Your task to perform on an android device: choose inbox layout in the gmail app Image 0: 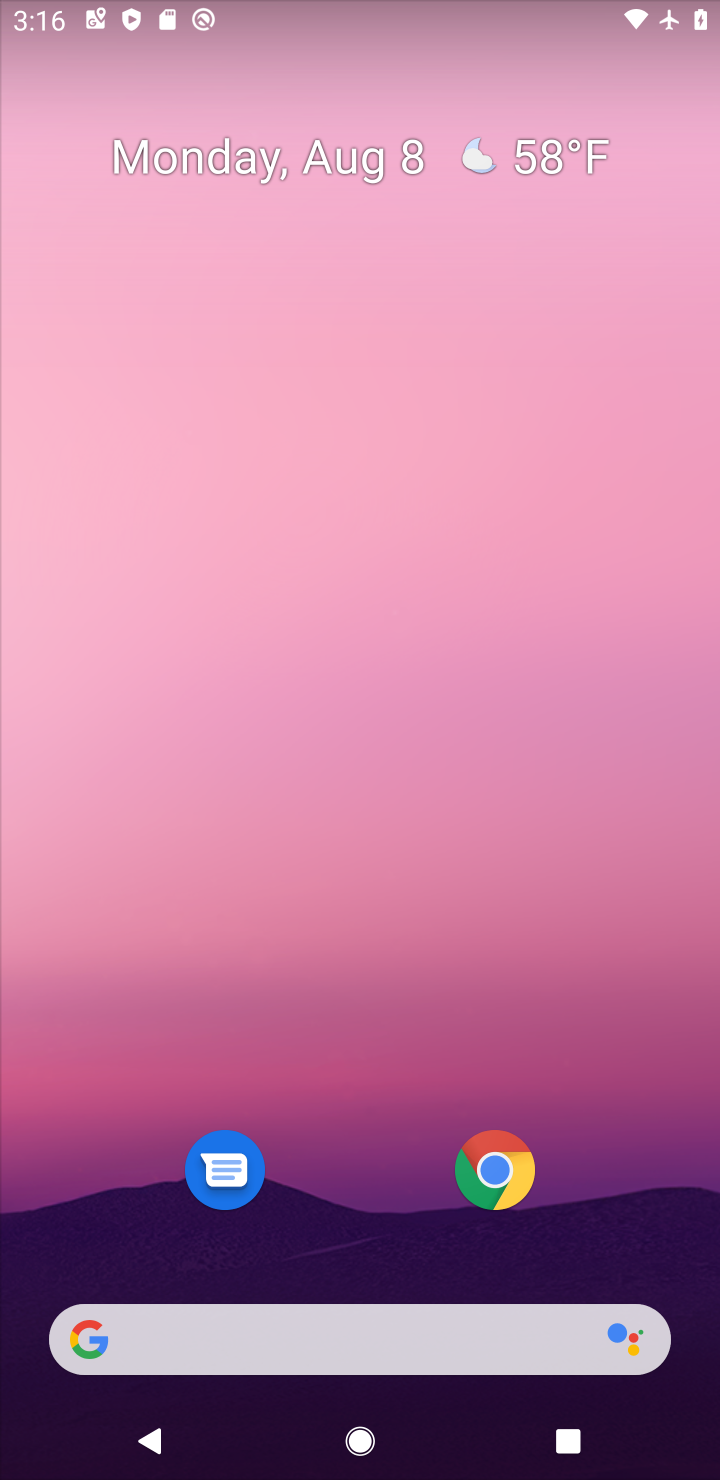
Step 0: drag from (338, 1124) to (338, 573)
Your task to perform on an android device: choose inbox layout in the gmail app Image 1: 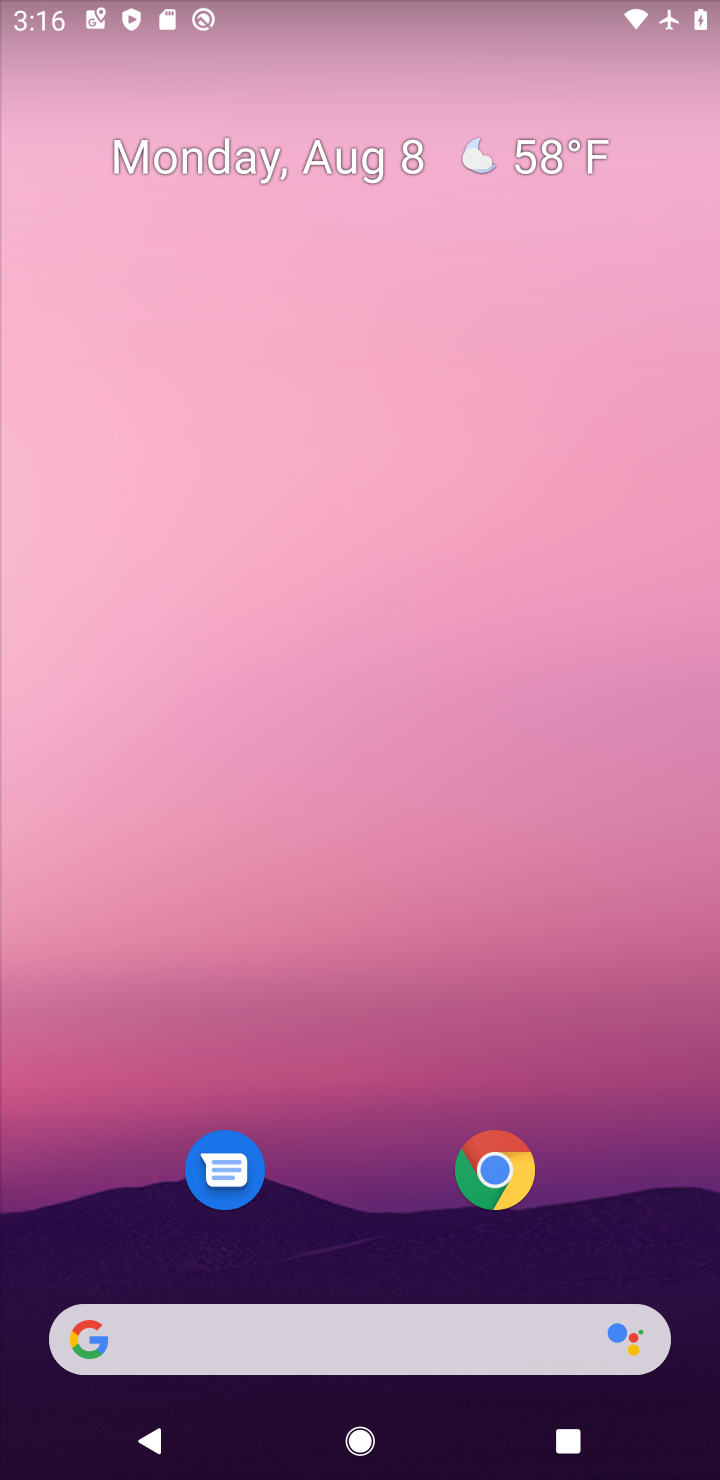
Step 1: drag from (348, 1174) to (350, 443)
Your task to perform on an android device: choose inbox layout in the gmail app Image 2: 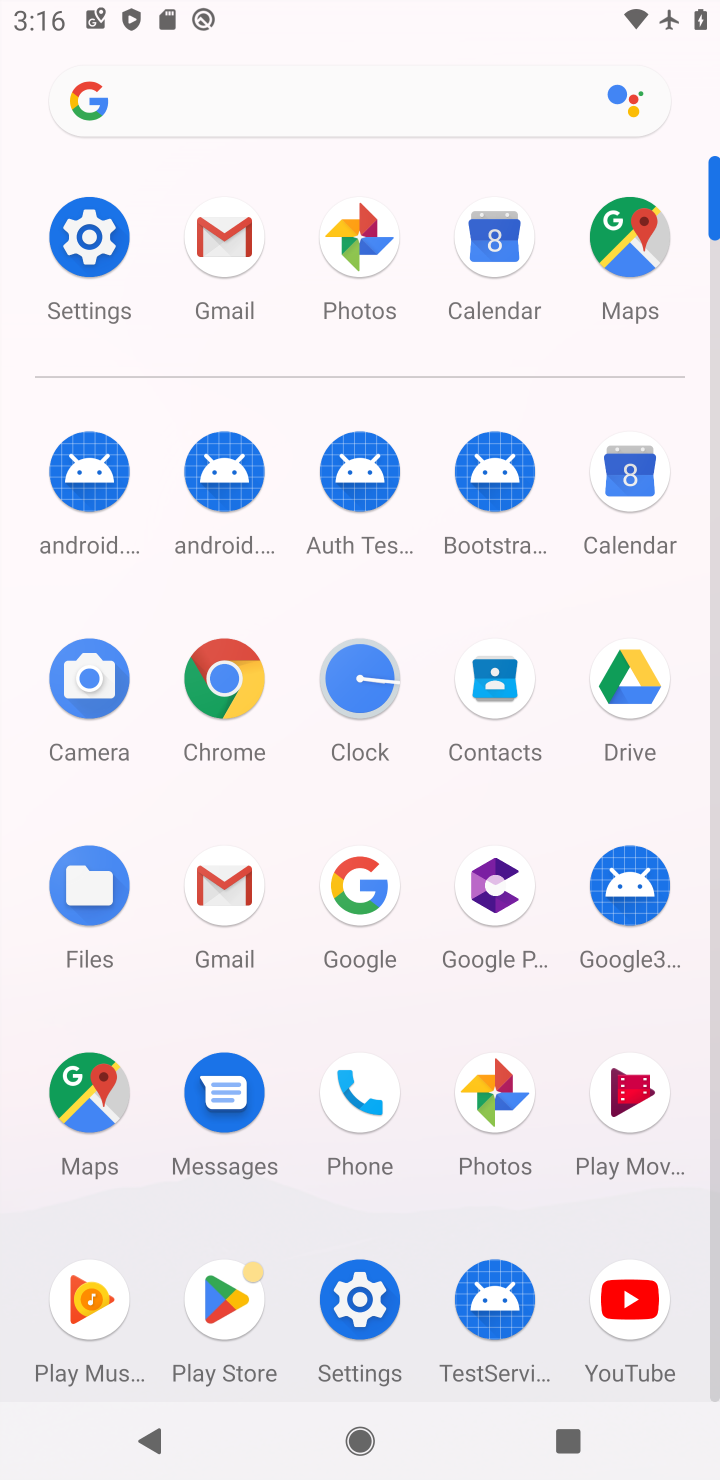
Step 2: click (209, 905)
Your task to perform on an android device: choose inbox layout in the gmail app Image 3: 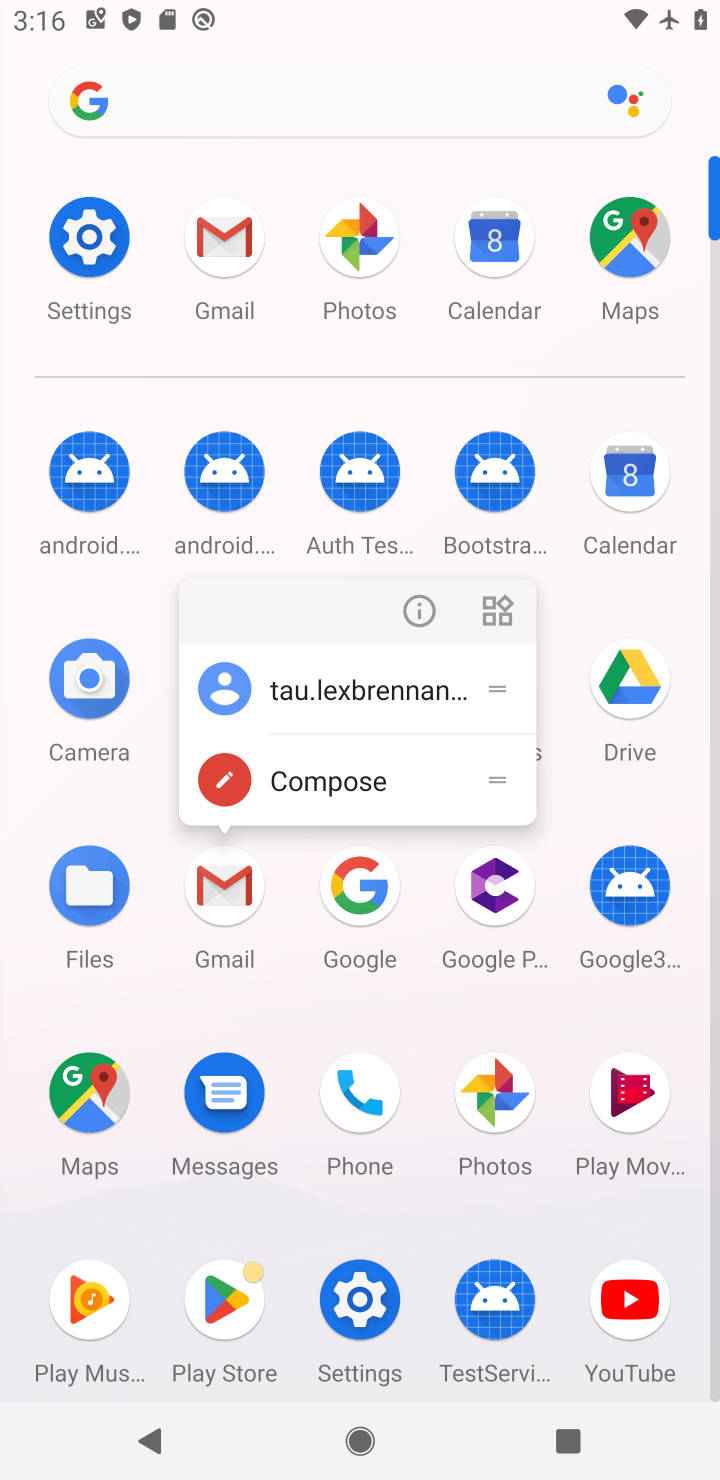
Step 3: click (227, 924)
Your task to perform on an android device: choose inbox layout in the gmail app Image 4: 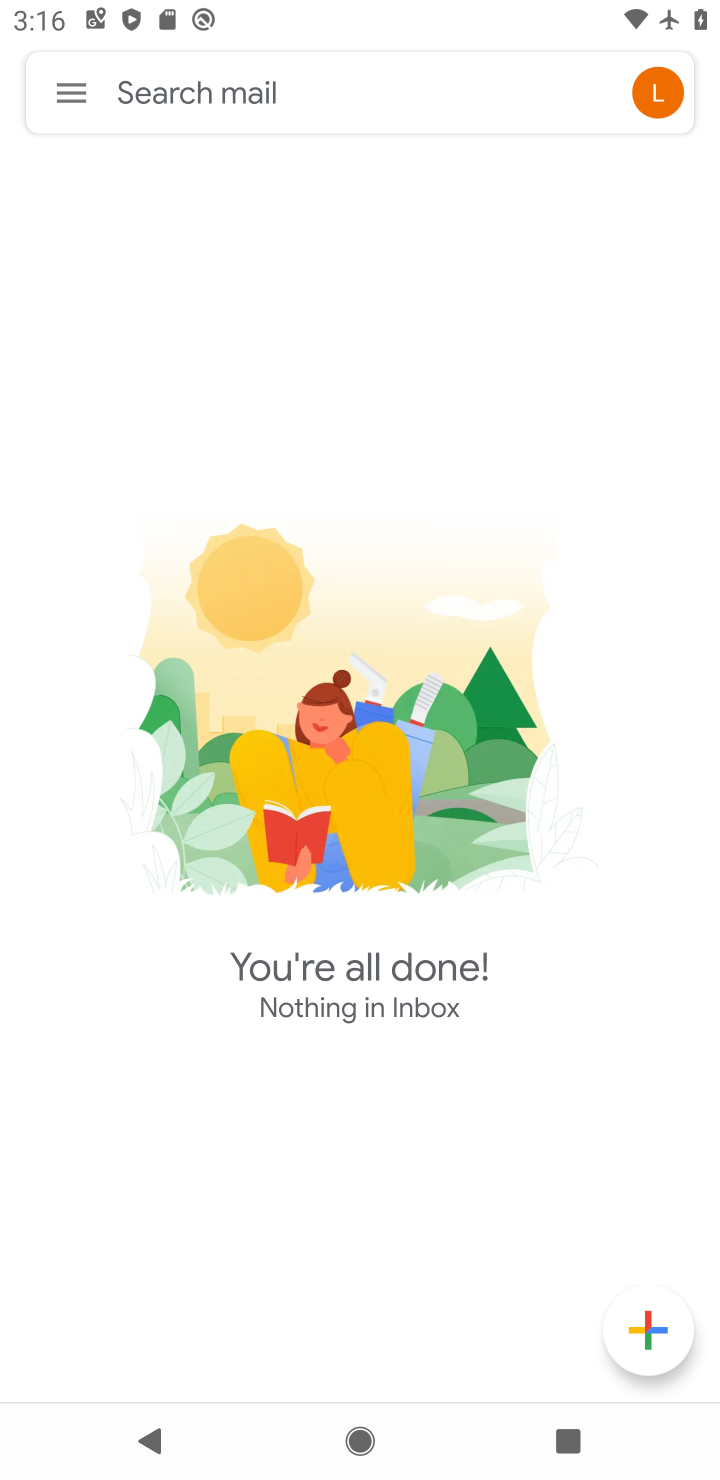
Step 4: click (87, 99)
Your task to perform on an android device: choose inbox layout in the gmail app Image 5: 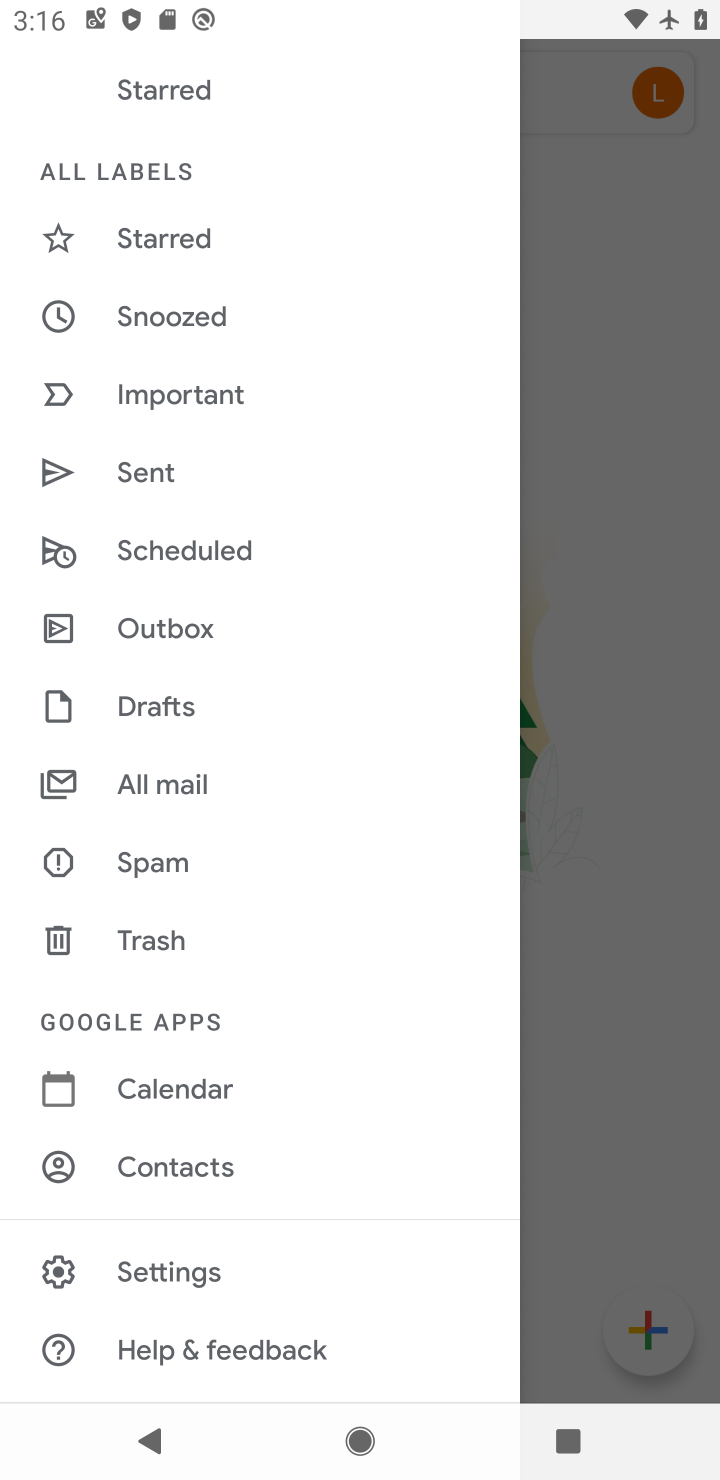
Step 5: click (200, 1276)
Your task to perform on an android device: choose inbox layout in the gmail app Image 6: 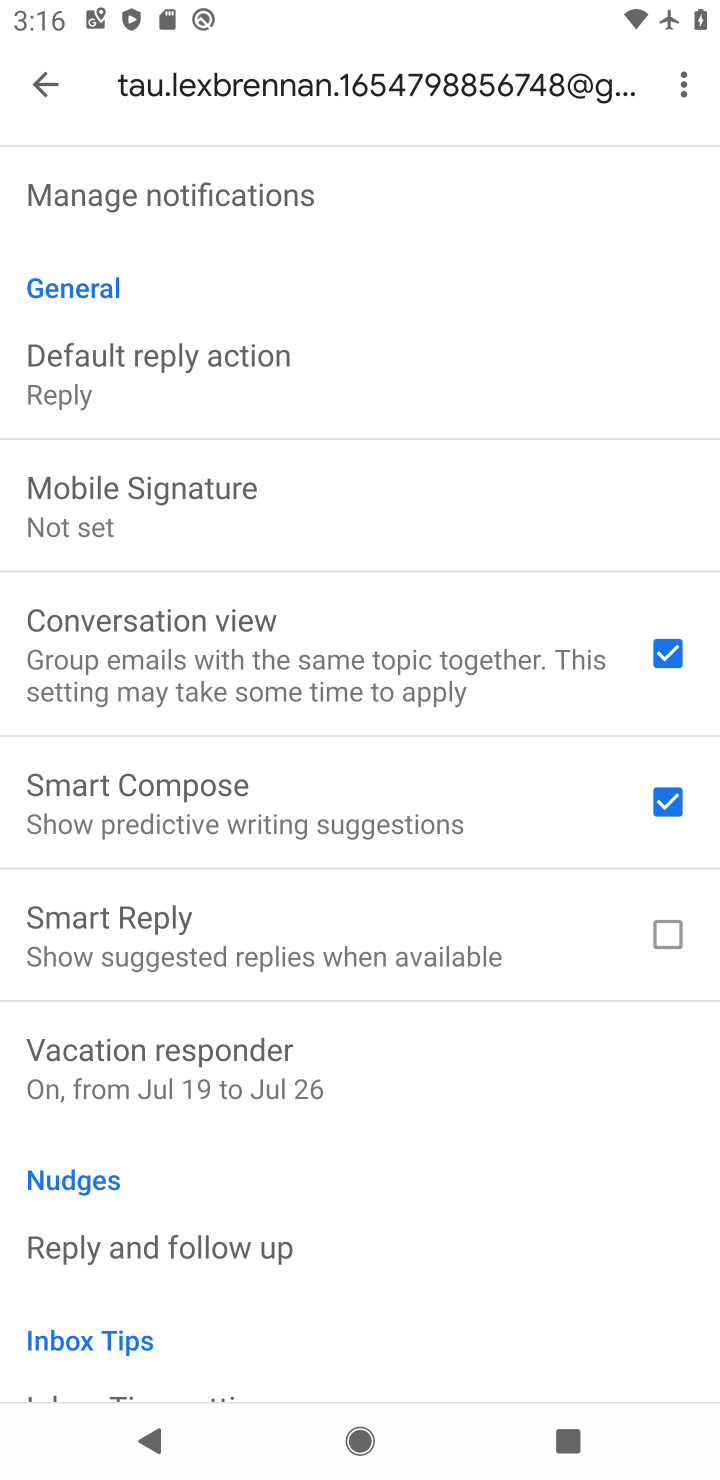
Step 6: drag from (259, 496) to (277, 1198)
Your task to perform on an android device: choose inbox layout in the gmail app Image 7: 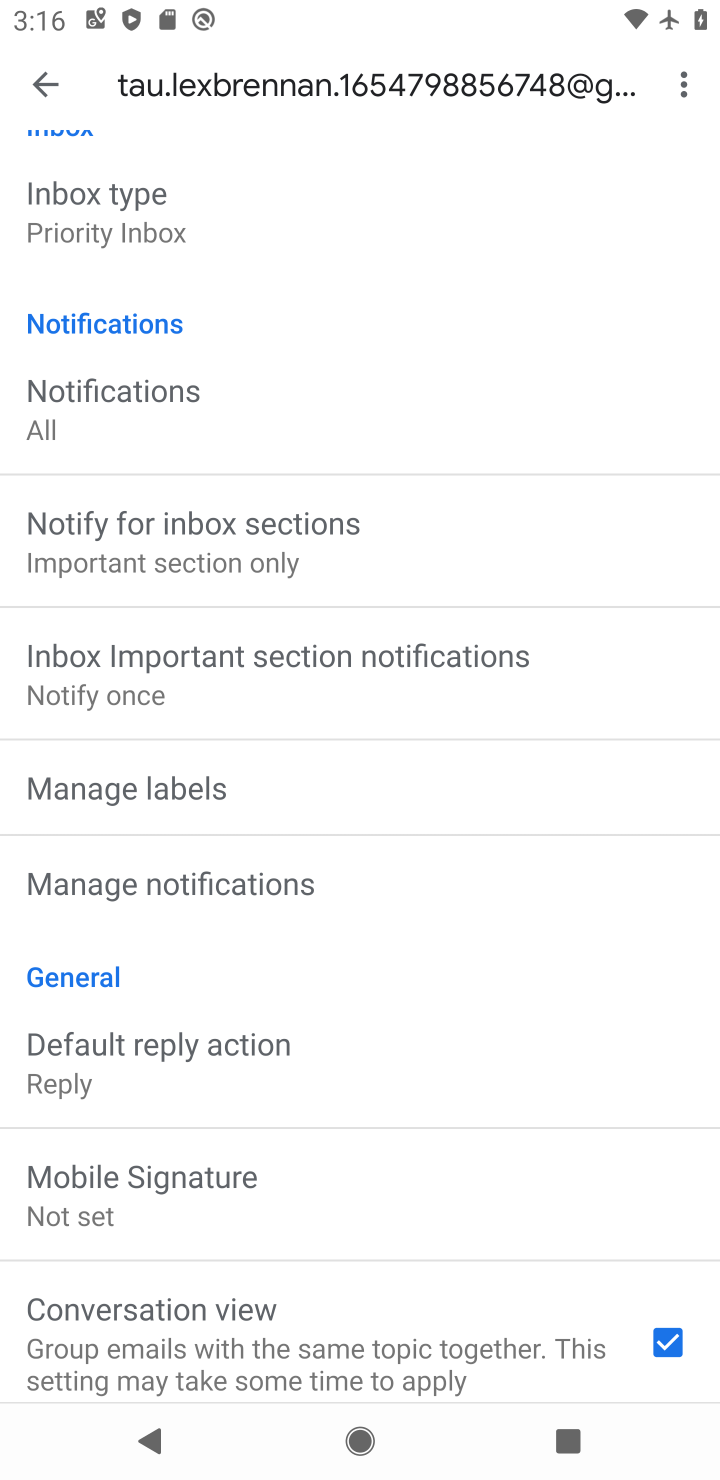
Step 7: click (115, 240)
Your task to perform on an android device: choose inbox layout in the gmail app Image 8: 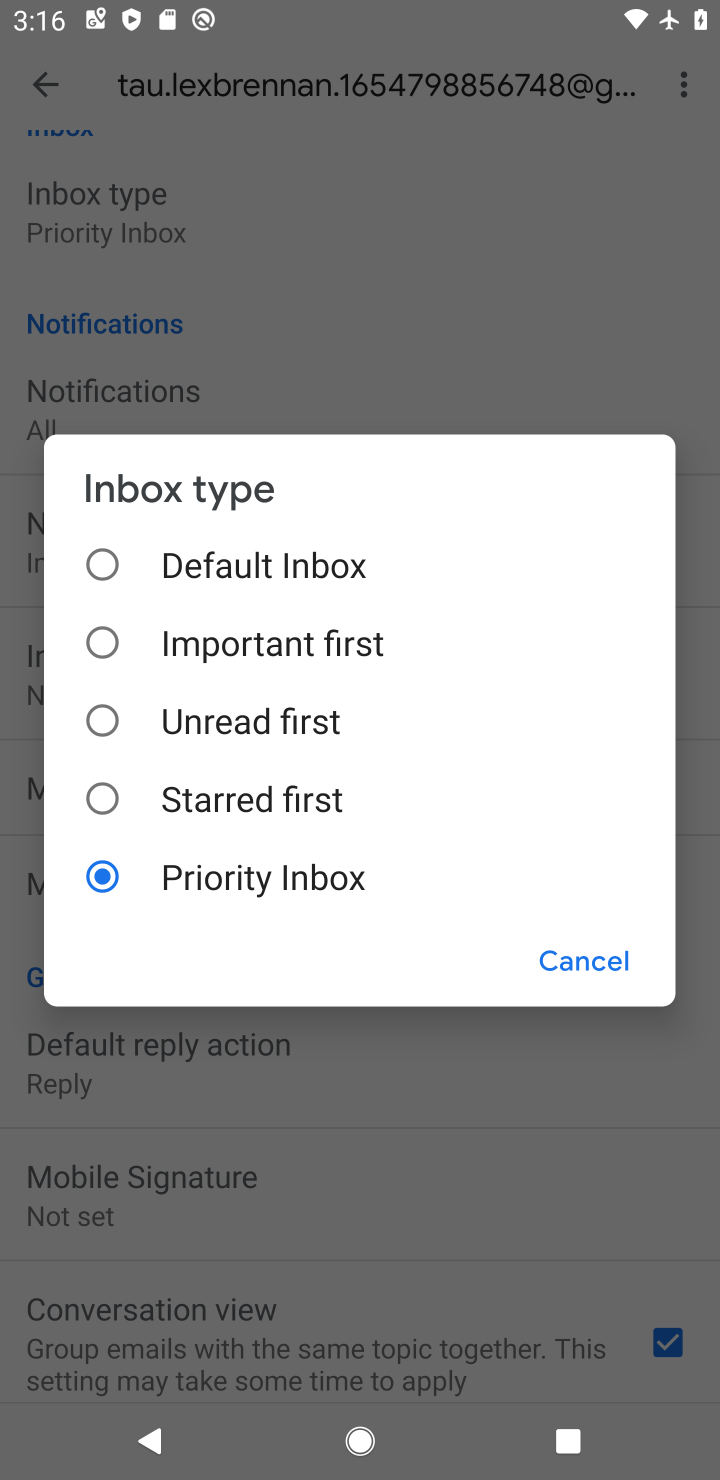
Step 8: click (272, 561)
Your task to perform on an android device: choose inbox layout in the gmail app Image 9: 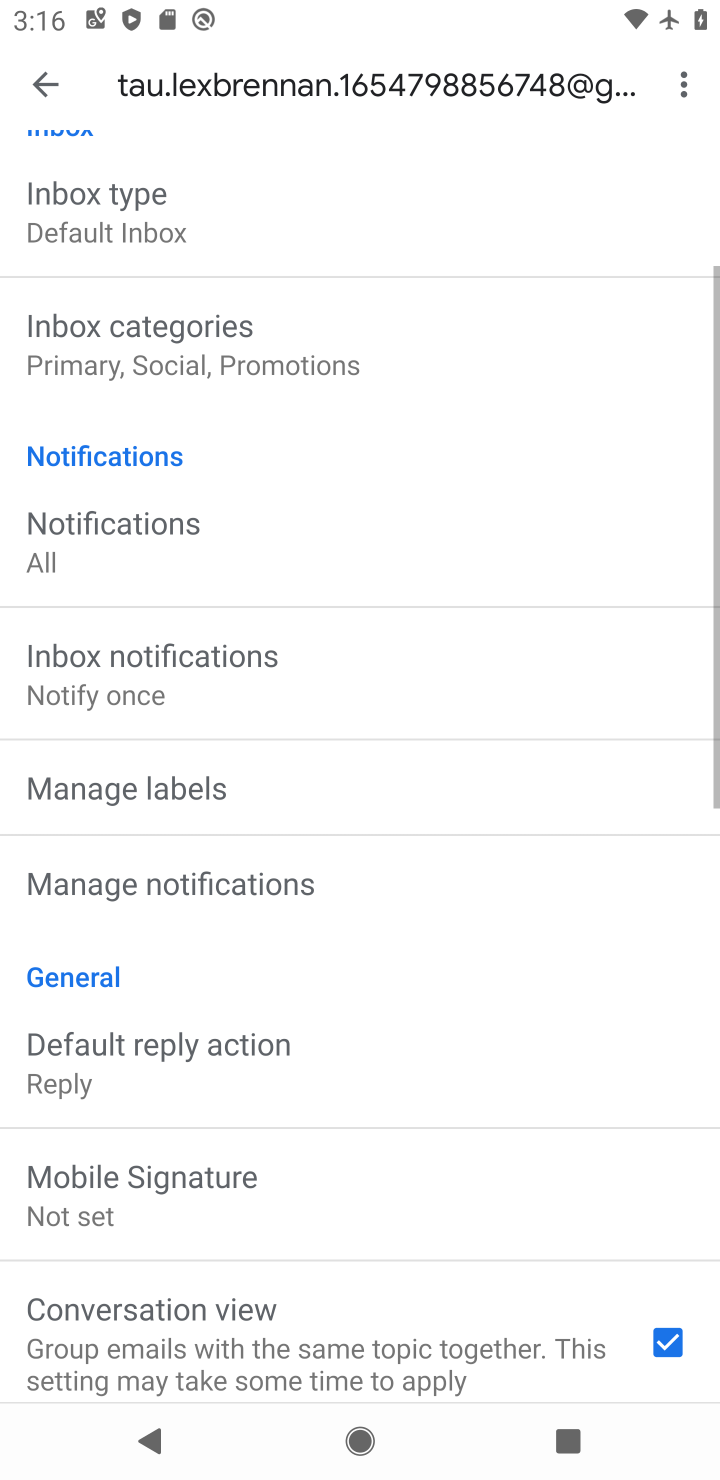
Step 9: task complete